Your task to perform on an android device: turn on improve location accuracy Image 0: 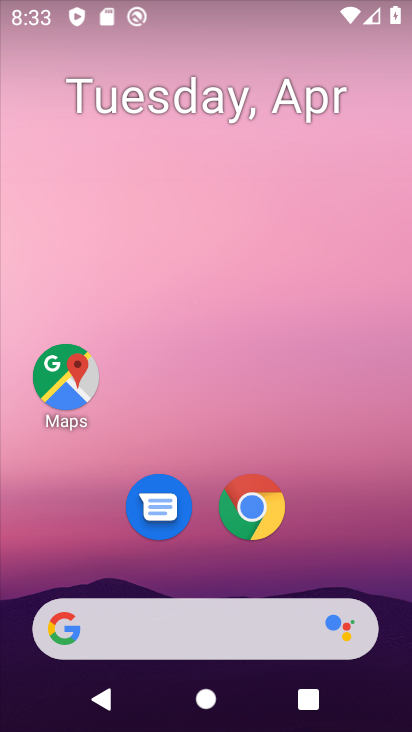
Step 0: drag from (209, 137) to (206, 30)
Your task to perform on an android device: turn on improve location accuracy Image 1: 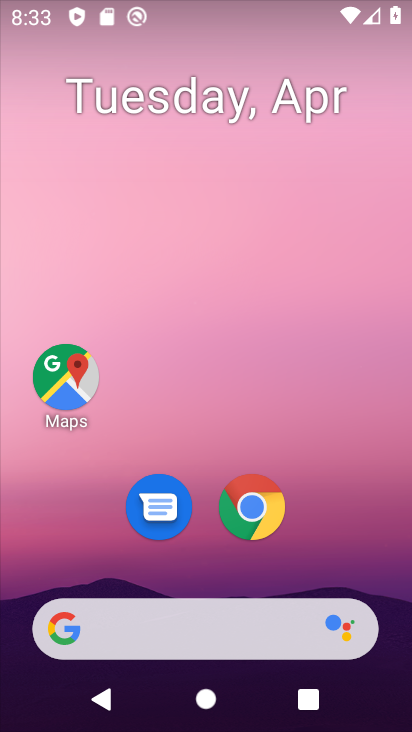
Step 1: drag from (210, 461) to (232, 37)
Your task to perform on an android device: turn on improve location accuracy Image 2: 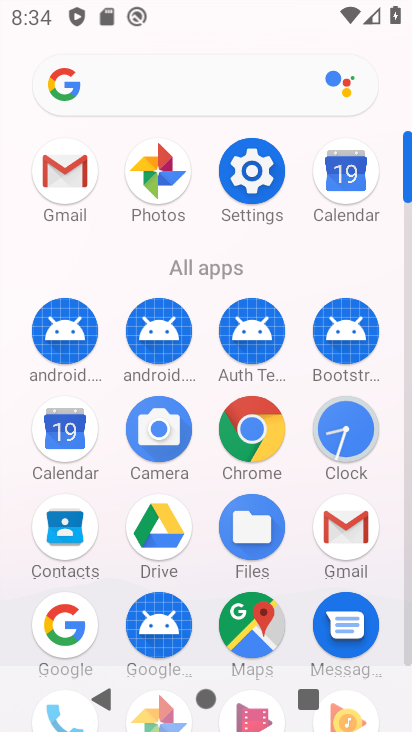
Step 2: click (266, 177)
Your task to perform on an android device: turn on improve location accuracy Image 3: 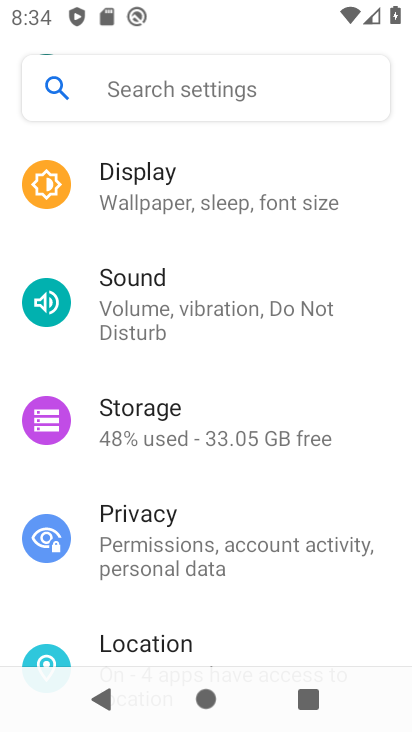
Step 3: click (207, 641)
Your task to perform on an android device: turn on improve location accuracy Image 4: 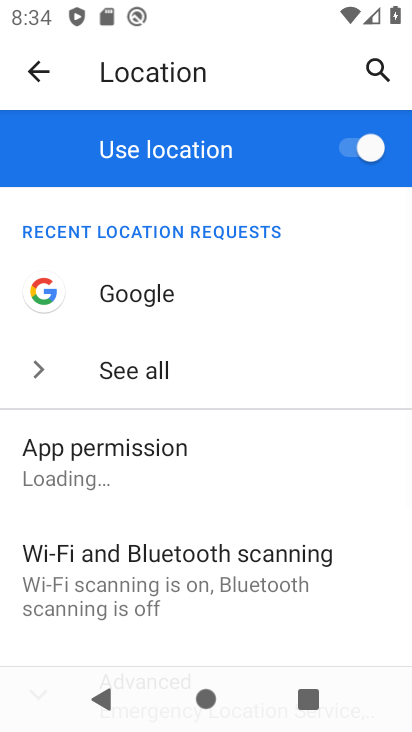
Step 4: drag from (230, 606) to (253, 250)
Your task to perform on an android device: turn on improve location accuracy Image 5: 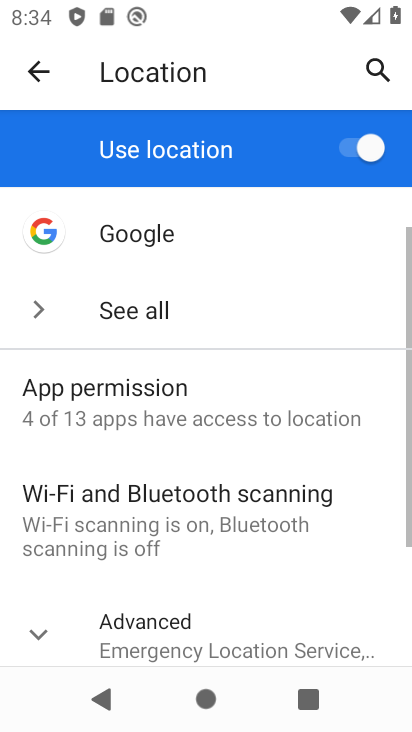
Step 5: drag from (214, 550) to (233, 305)
Your task to perform on an android device: turn on improve location accuracy Image 6: 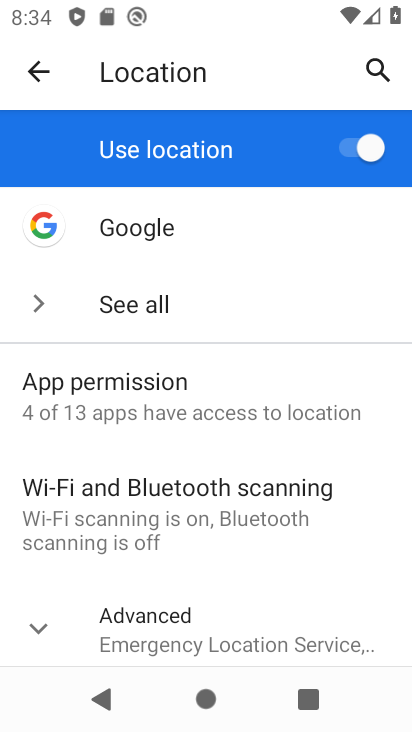
Step 6: click (164, 614)
Your task to perform on an android device: turn on improve location accuracy Image 7: 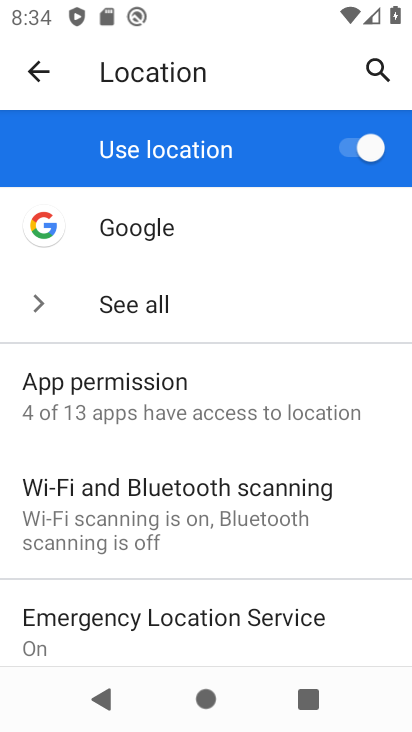
Step 7: drag from (217, 570) to (261, 257)
Your task to perform on an android device: turn on improve location accuracy Image 8: 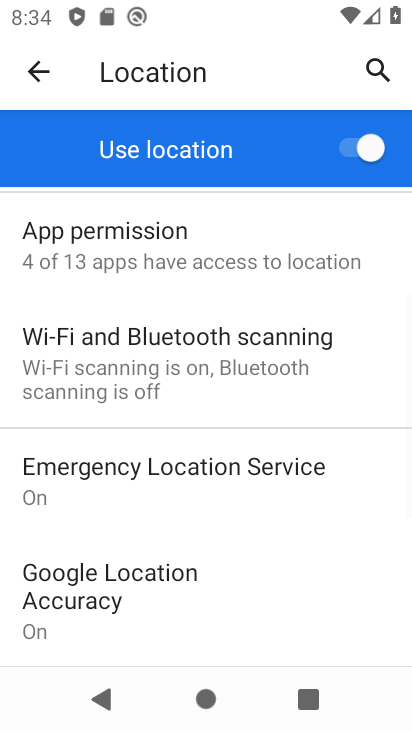
Step 8: drag from (186, 570) to (202, 302)
Your task to perform on an android device: turn on improve location accuracy Image 9: 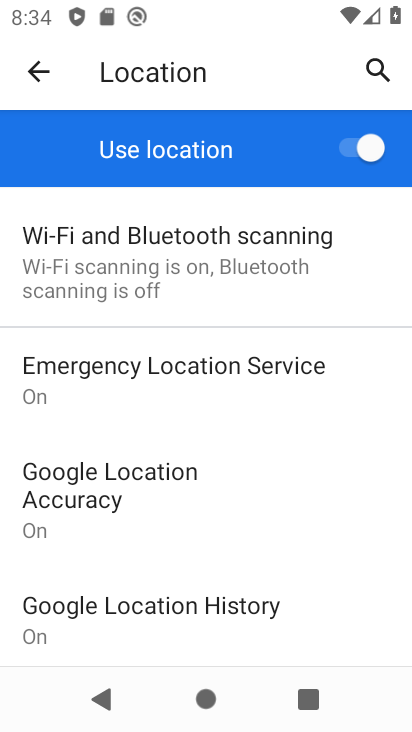
Step 9: click (171, 493)
Your task to perform on an android device: turn on improve location accuracy Image 10: 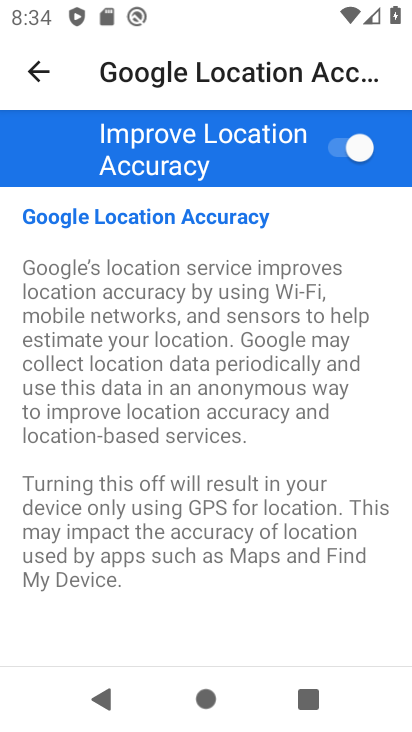
Step 10: task complete